Your task to perform on an android device: Find coffee shops on Maps Image 0: 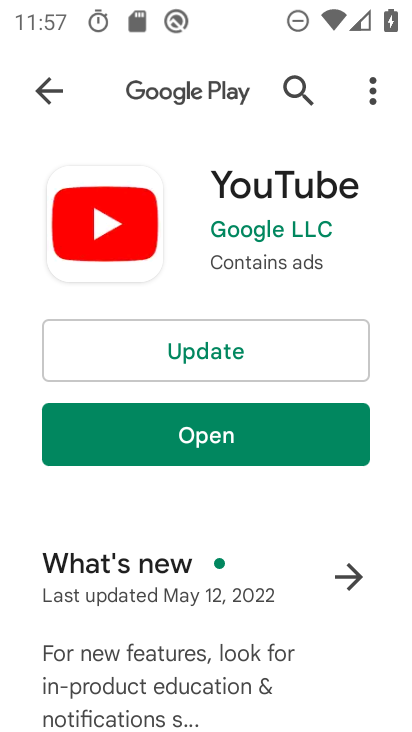
Step 0: press back button
Your task to perform on an android device: Find coffee shops on Maps Image 1: 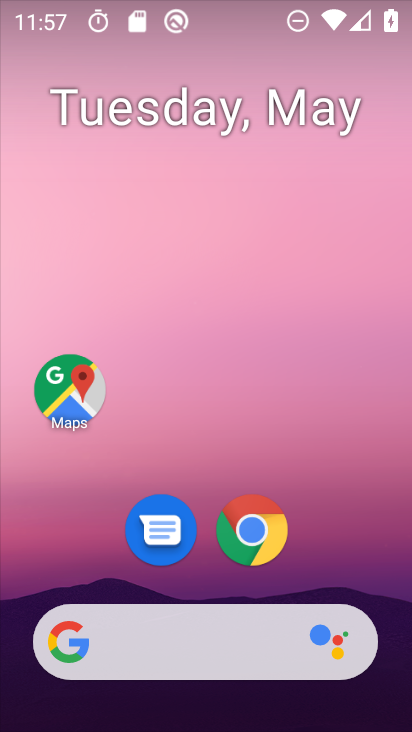
Step 1: drag from (250, 581) to (313, 49)
Your task to perform on an android device: Find coffee shops on Maps Image 2: 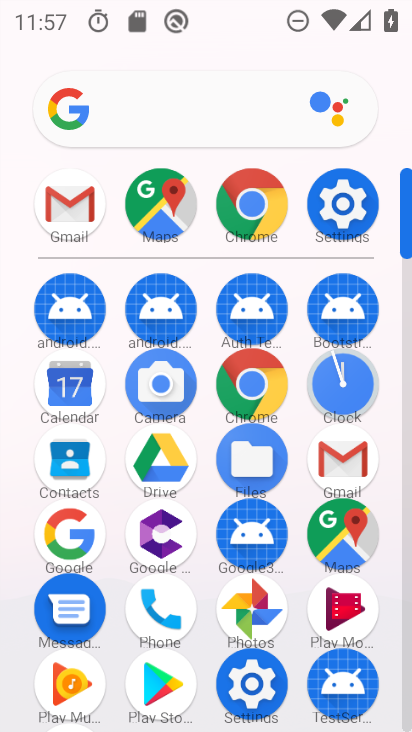
Step 2: click (343, 514)
Your task to perform on an android device: Find coffee shops on Maps Image 3: 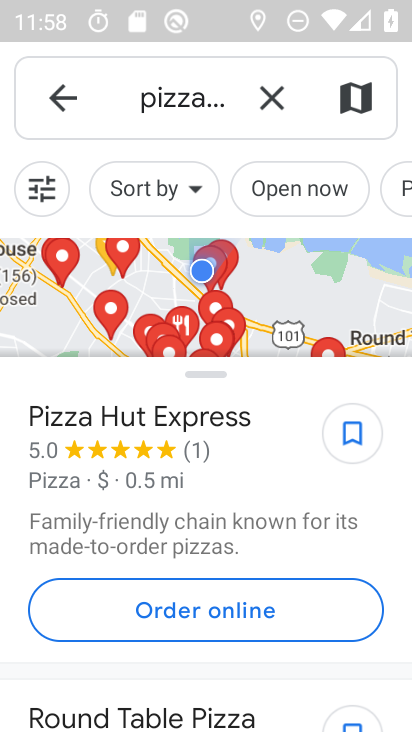
Step 3: drag from (176, 636) to (240, 352)
Your task to perform on an android device: Find coffee shops on Maps Image 4: 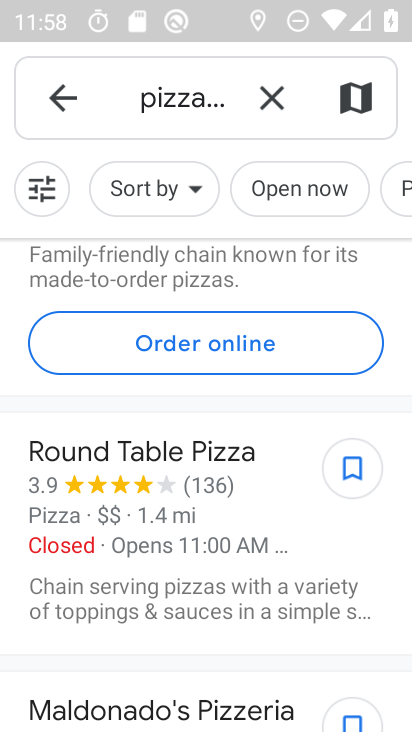
Step 4: press back button
Your task to perform on an android device: Find coffee shops on Maps Image 5: 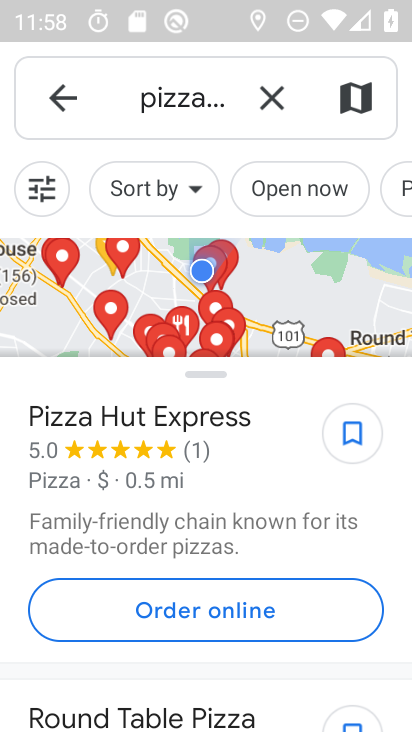
Step 5: click (271, 95)
Your task to perform on an android device: Find coffee shops on Maps Image 6: 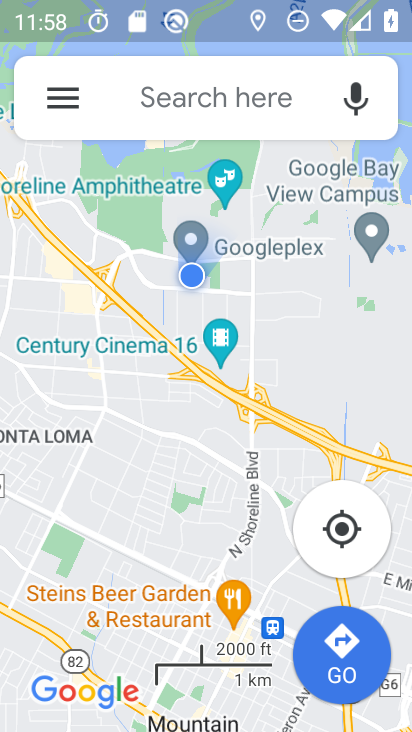
Step 6: click (251, 114)
Your task to perform on an android device: Find coffee shops on Maps Image 7: 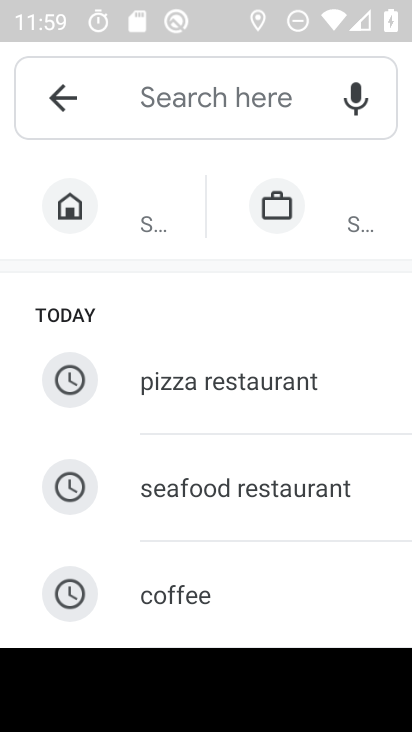
Step 7: type "coffee shops"
Your task to perform on an android device: Find coffee shops on Maps Image 8: 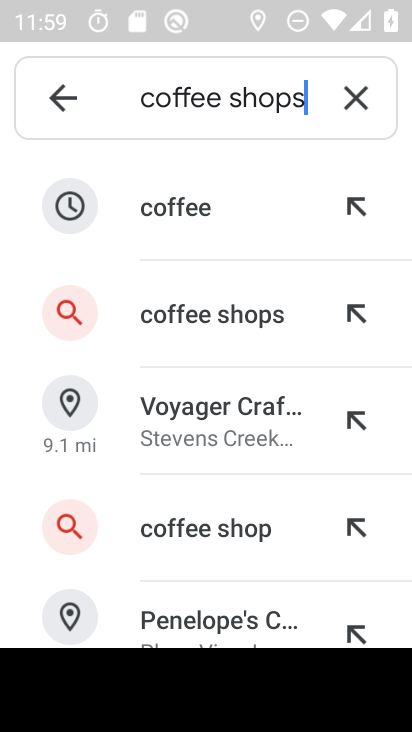
Step 8: click (230, 319)
Your task to perform on an android device: Find coffee shops on Maps Image 9: 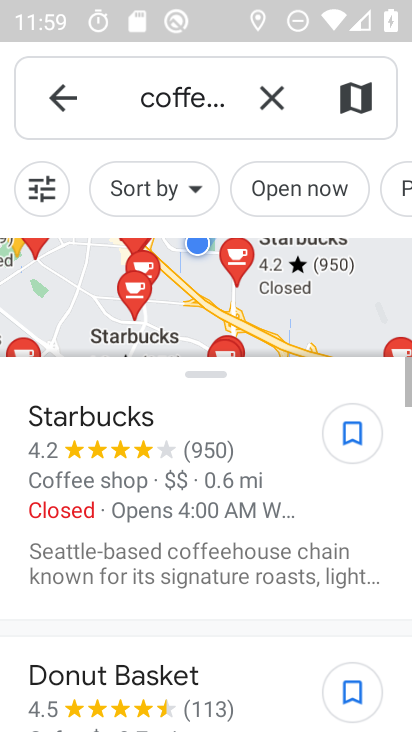
Step 9: task complete